Your task to perform on an android device: Open Wikipedia Image 0: 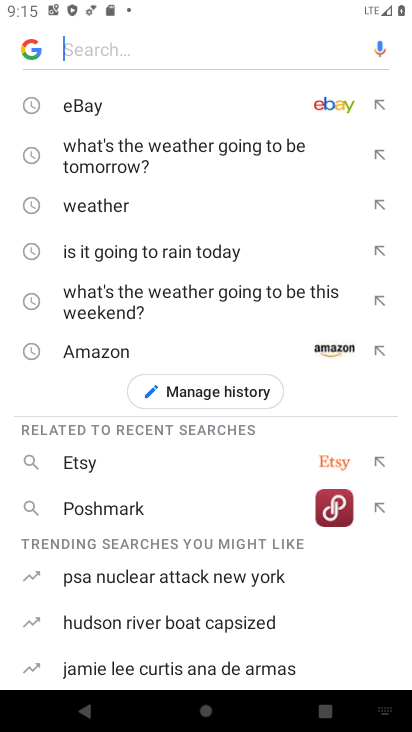
Step 0: press home button
Your task to perform on an android device: Open Wikipedia Image 1: 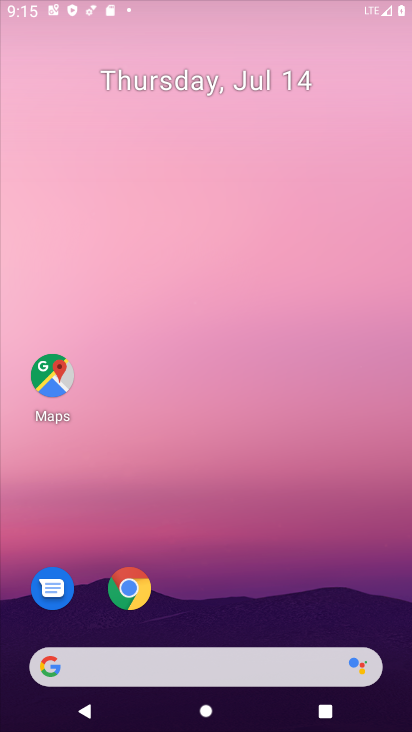
Step 1: drag from (396, 610) to (176, 83)
Your task to perform on an android device: Open Wikipedia Image 2: 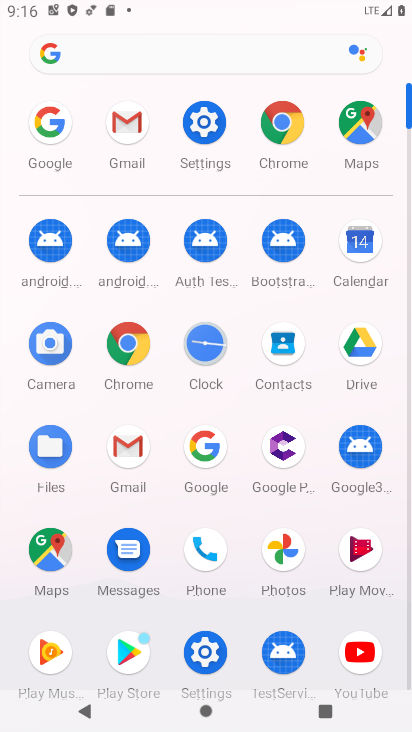
Step 2: click (204, 452)
Your task to perform on an android device: Open Wikipedia Image 3: 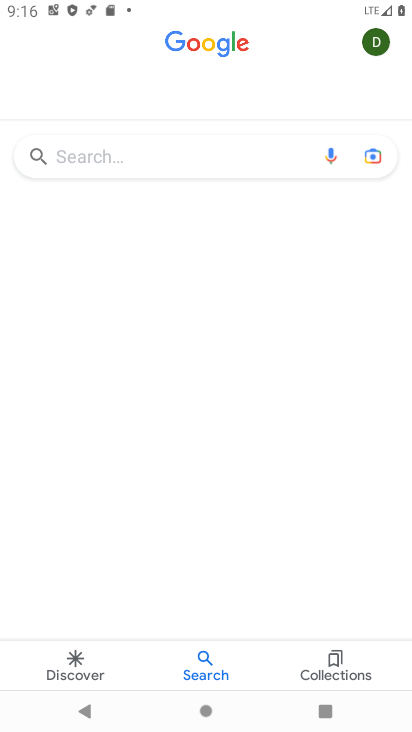
Step 3: click (119, 160)
Your task to perform on an android device: Open Wikipedia Image 4: 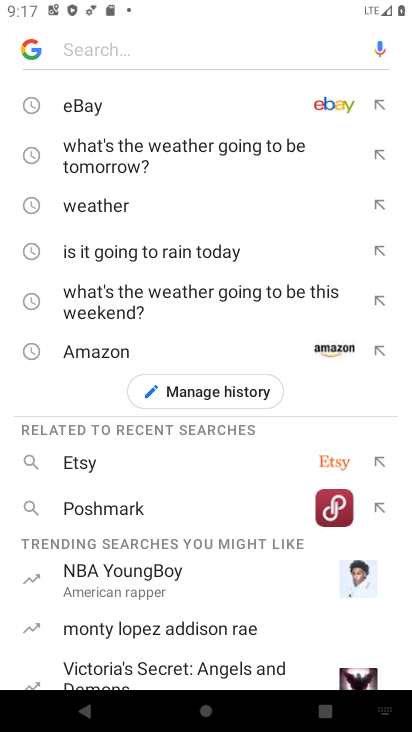
Step 4: type "Wikipedia"
Your task to perform on an android device: Open Wikipedia Image 5: 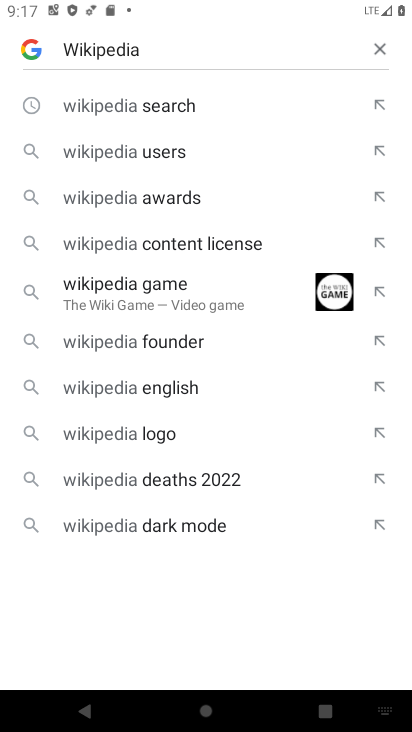
Step 5: click (110, 113)
Your task to perform on an android device: Open Wikipedia Image 6: 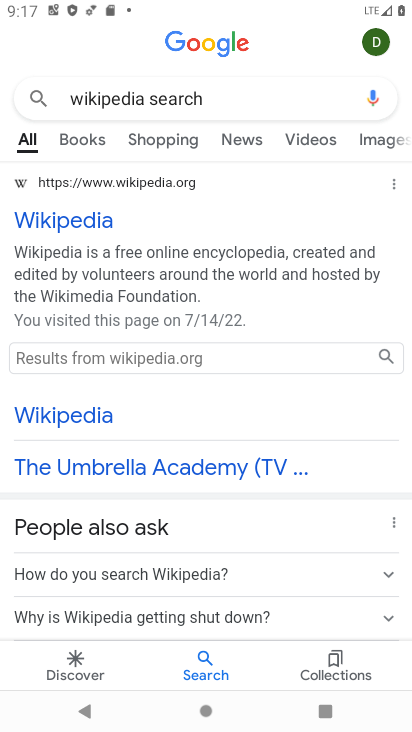
Step 6: task complete